Your task to perform on an android device: set default search engine in the chrome app Image 0: 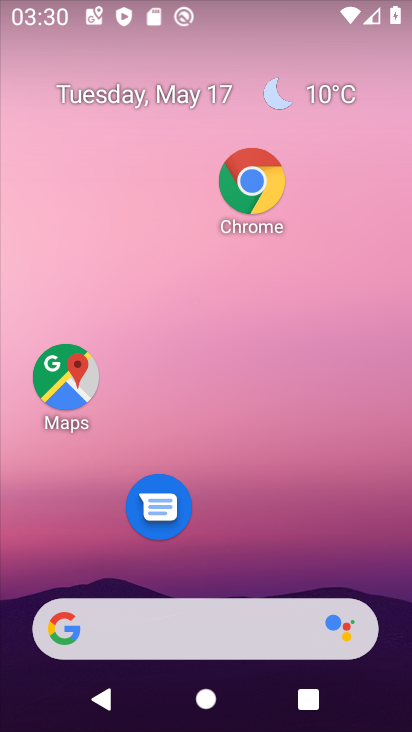
Step 0: click (249, 181)
Your task to perform on an android device: set default search engine in the chrome app Image 1: 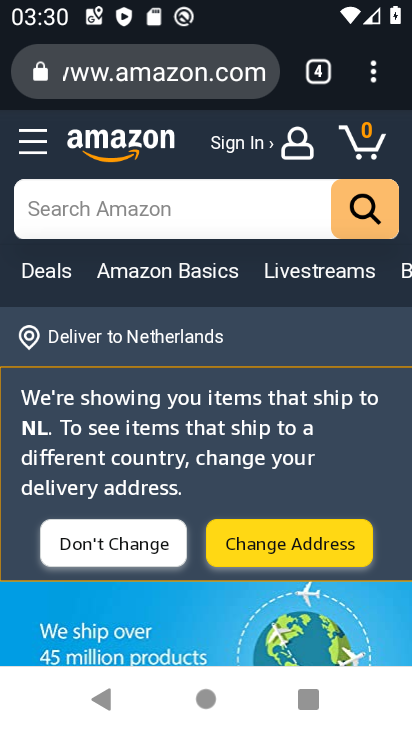
Step 1: click (364, 75)
Your task to perform on an android device: set default search engine in the chrome app Image 2: 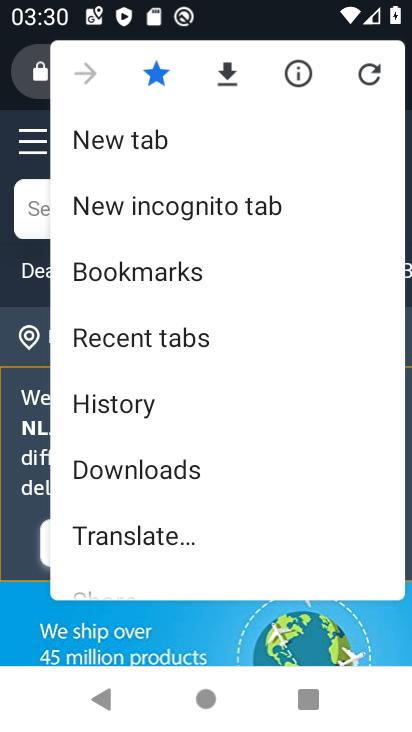
Step 2: drag from (126, 550) to (232, 173)
Your task to perform on an android device: set default search engine in the chrome app Image 3: 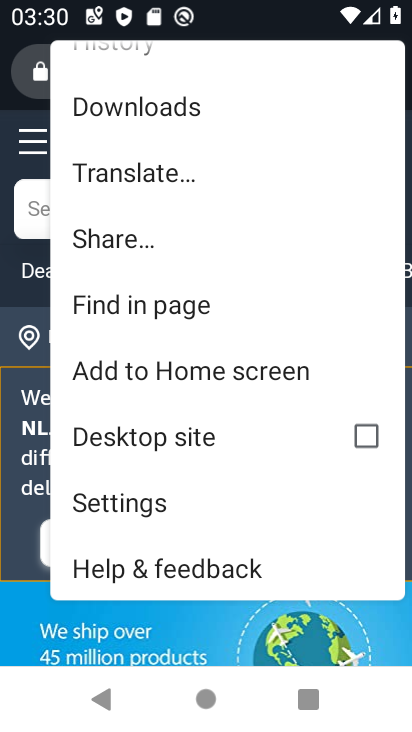
Step 3: click (119, 493)
Your task to perform on an android device: set default search engine in the chrome app Image 4: 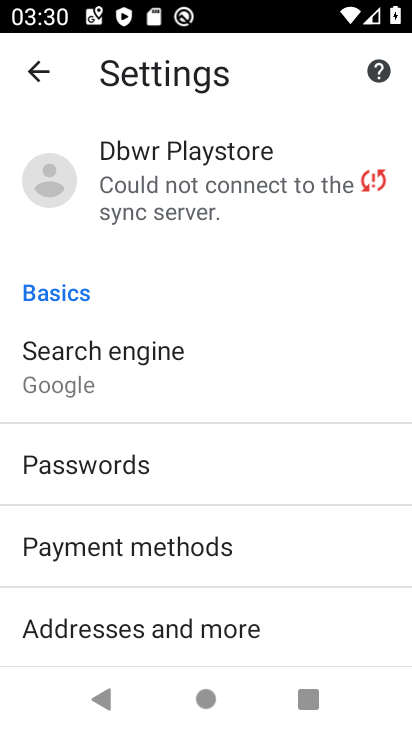
Step 4: click (114, 381)
Your task to perform on an android device: set default search engine in the chrome app Image 5: 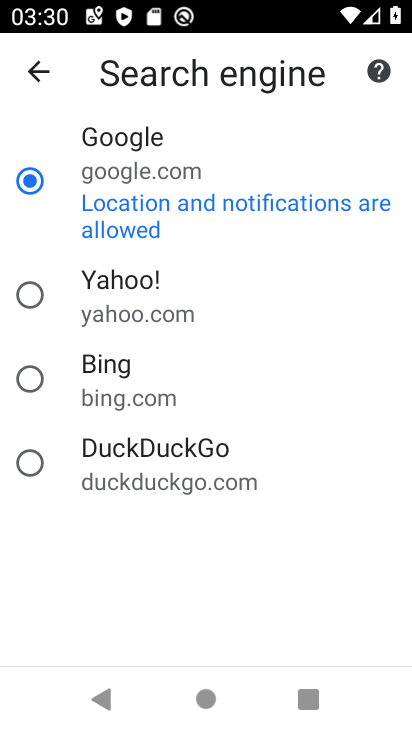
Step 5: click (219, 284)
Your task to perform on an android device: set default search engine in the chrome app Image 6: 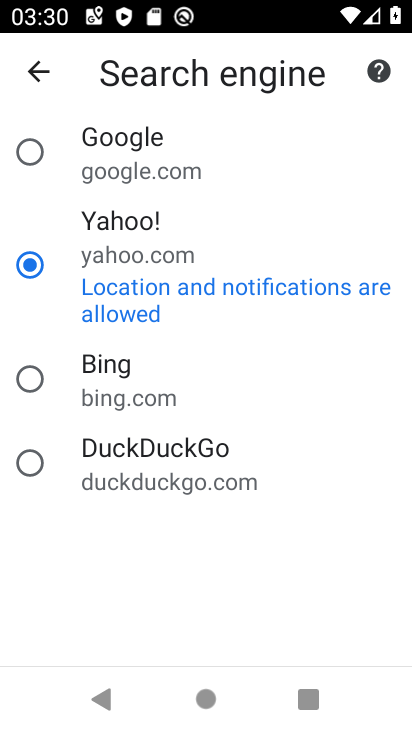
Step 6: task complete